Your task to perform on an android device: see creations saved in the google photos Image 0: 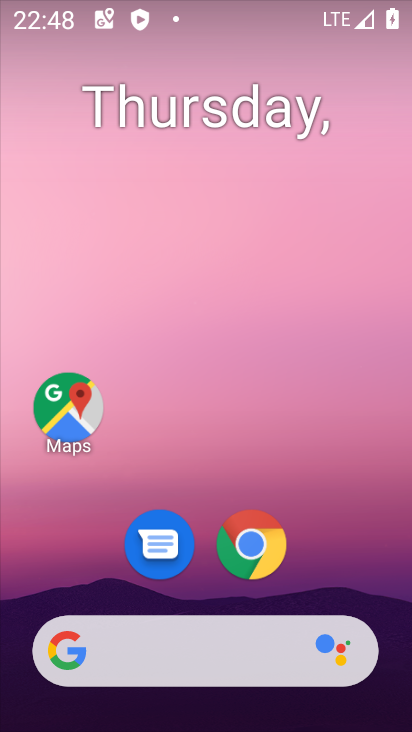
Step 0: drag from (299, 530) to (126, 132)
Your task to perform on an android device: see creations saved in the google photos Image 1: 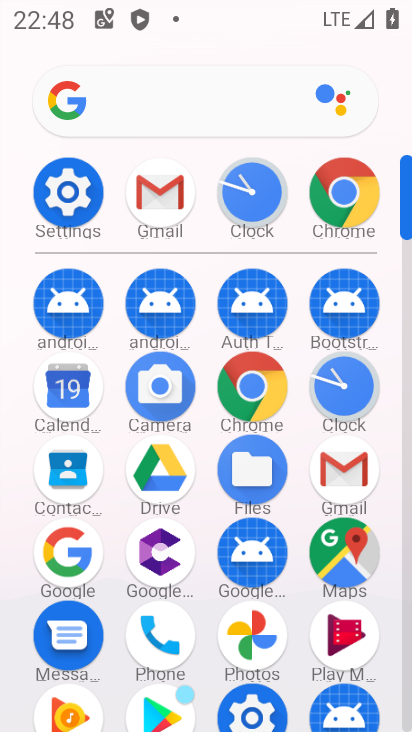
Step 1: click (268, 648)
Your task to perform on an android device: see creations saved in the google photos Image 2: 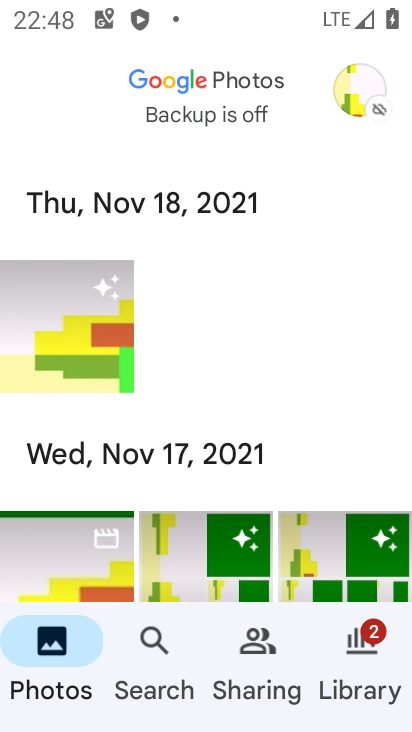
Step 2: click (135, 658)
Your task to perform on an android device: see creations saved in the google photos Image 3: 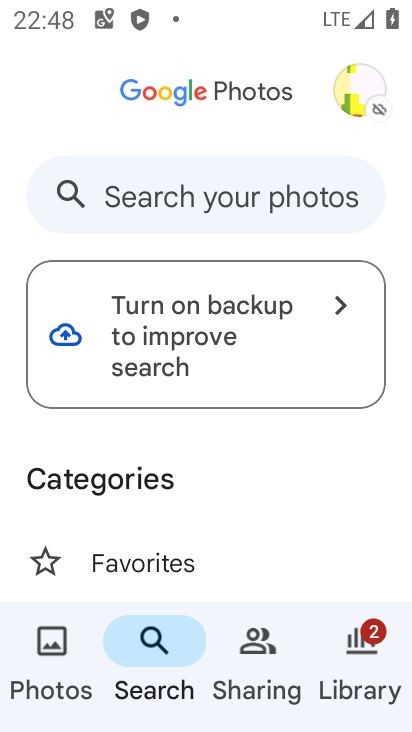
Step 3: drag from (166, 574) to (183, 87)
Your task to perform on an android device: see creations saved in the google photos Image 4: 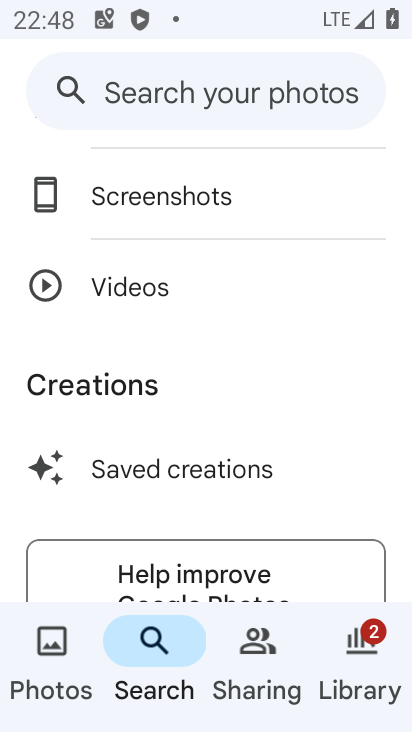
Step 4: click (199, 475)
Your task to perform on an android device: see creations saved in the google photos Image 5: 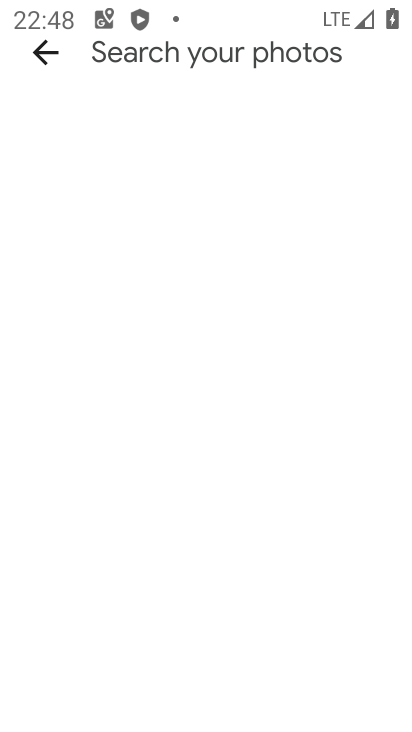
Step 5: click (201, 475)
Your task to perform on an android device: see creations saved in the google photos Image 6: 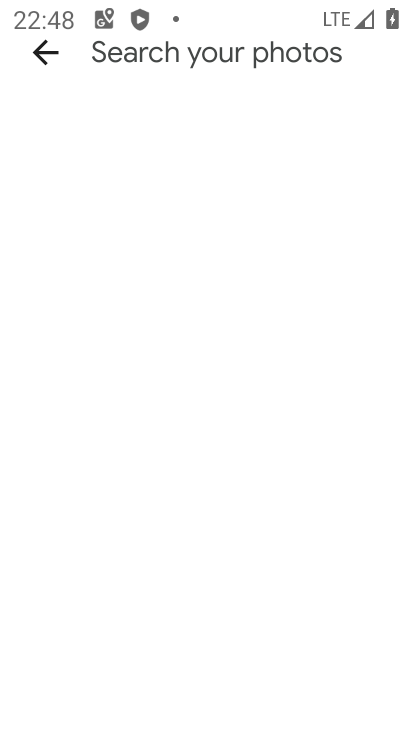
Step 6: click (171, 120)
Your task to perform on an android device: see creations saved in the google photos Image 7: 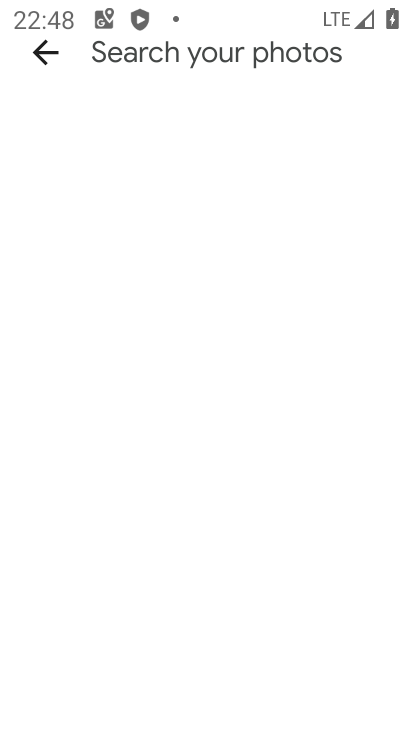
Step 7: click (171, 120)
Your task to perform on an android device: see creations saved in the google photos Image 8: 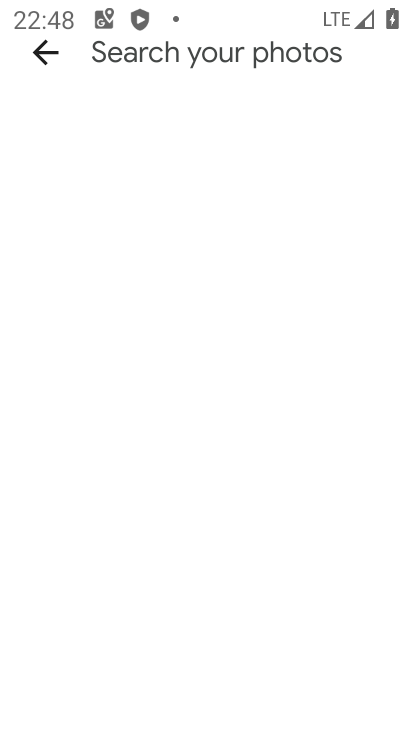
Step 8: click (302, 163)
Your task to perform on an android device: see creations saved in the google photos Image 9: 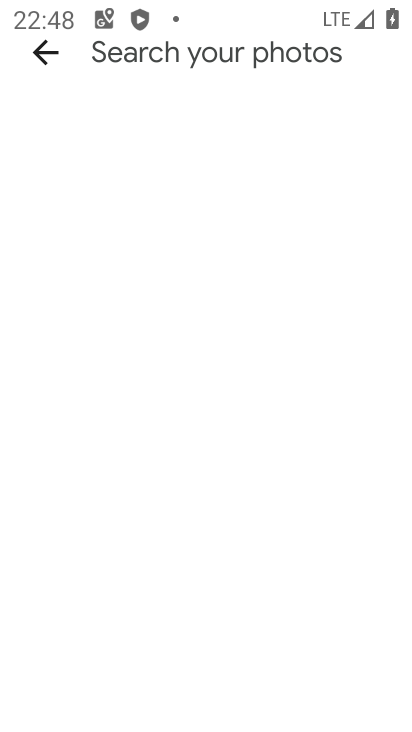
Step 9: drag from (135, 222) to (380, 267)
Your task to perform on an android device: see creations saved in the google photos Image 10: 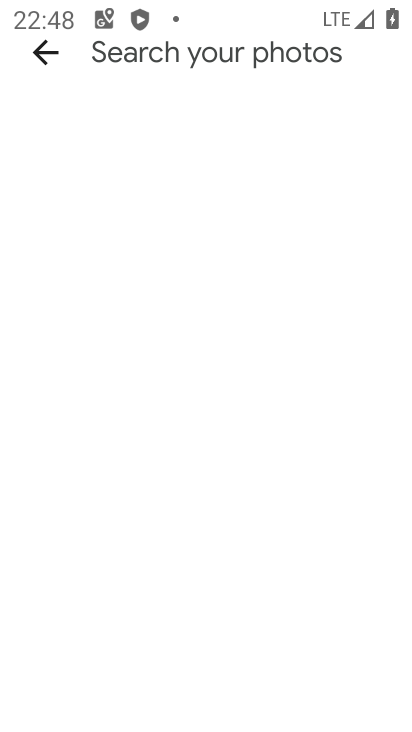
Step 10: click (262, 307)
Your task to perform on an android device: see creations saved in the google photos Image 11: 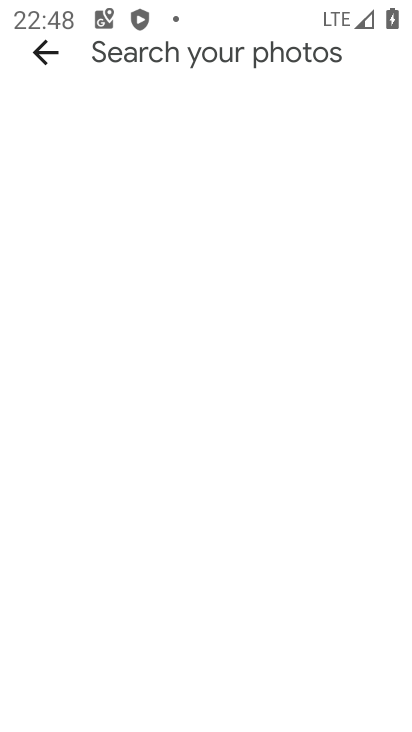
Step 11: click (133, 420)
Your task to perform on an android device: see creations saved in the google photos Image 12: 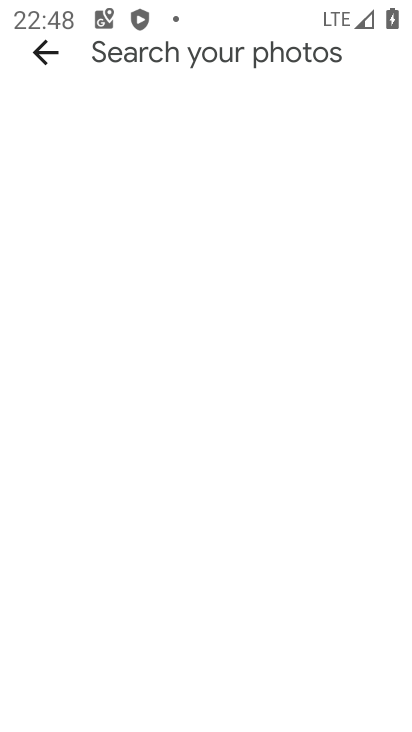
Step 12: click (202, 420)
Your task to perform on an android device: see creations saved in the google photos Image 13: 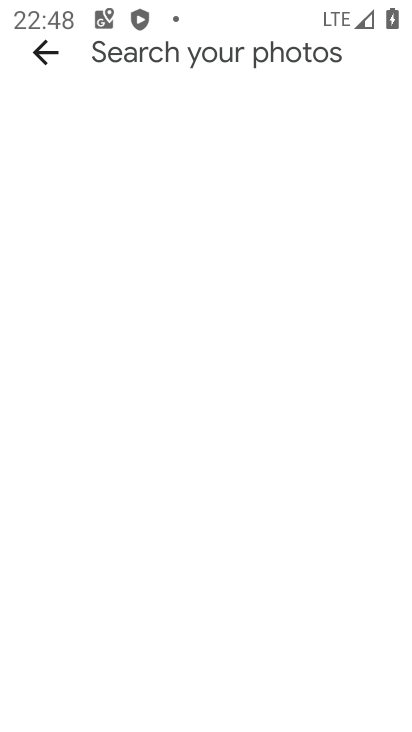
Step 13: click (214, 419)
Your task to perform on an android device: see creations saved in the google photos Image 14: 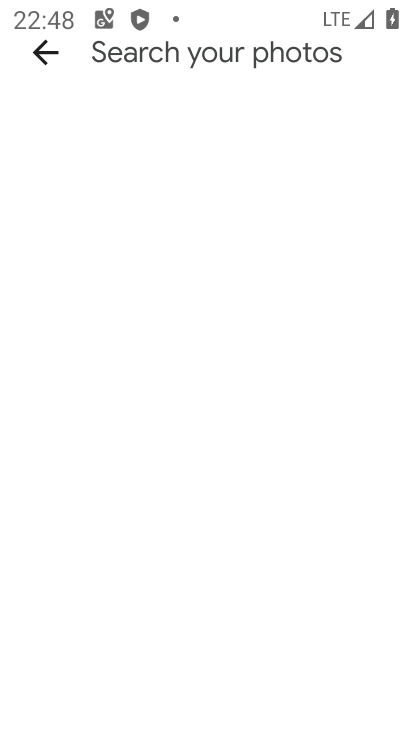
Step 14: click (214, 419)
Your task to perform on an android device: see creations saved in the google photos Image 15: 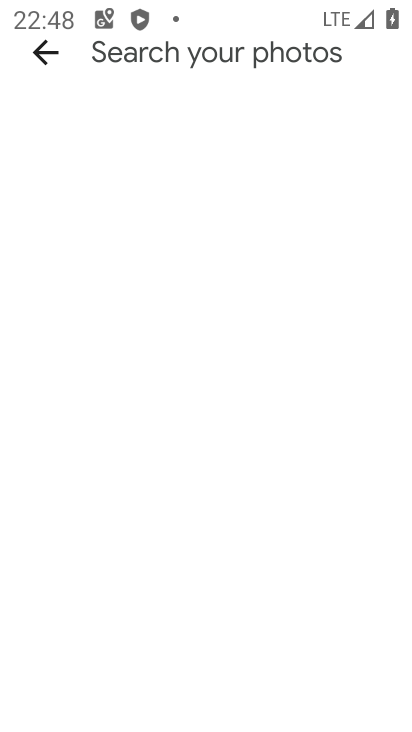
Step 15: click (214, 419)
Your task to perform on an android device: see creations saved in the google photos Image 16: 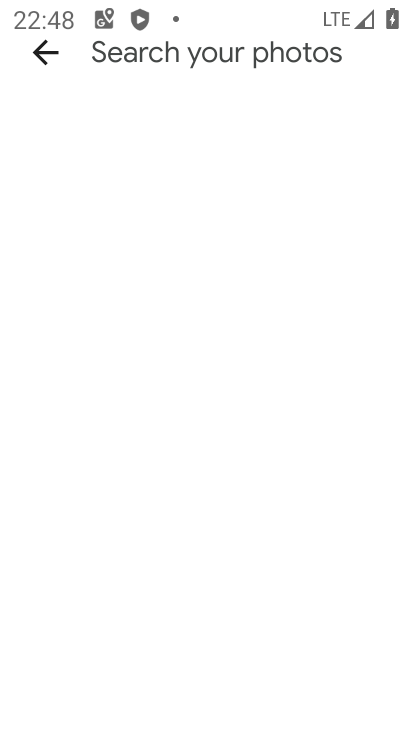
Step 16: click (216, 419)
Your task to perform on an android device: see creations saved in the google photos Image 17: 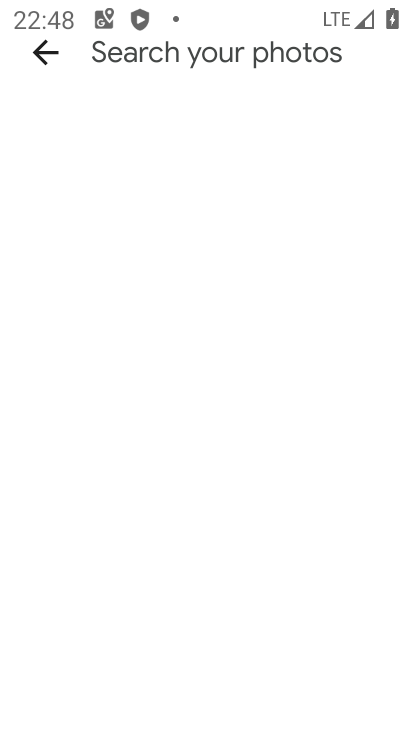
Step 17: click (216, 419)
Your task to perform on an android device: see creations saved in the google photos Image 18: 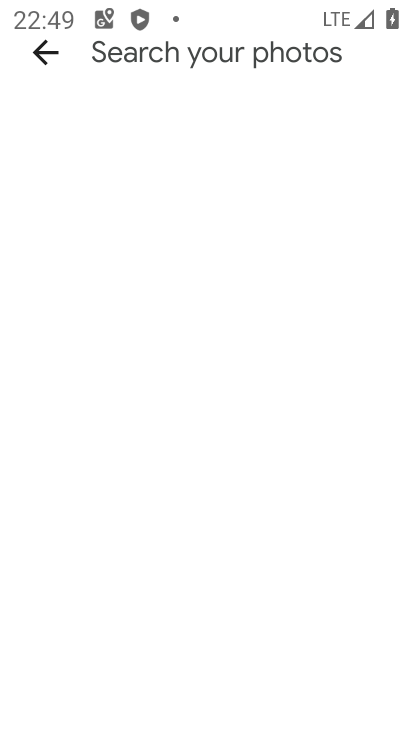
Step 18: task complete